Your task to perform on an android device: Open location settings Image 0: 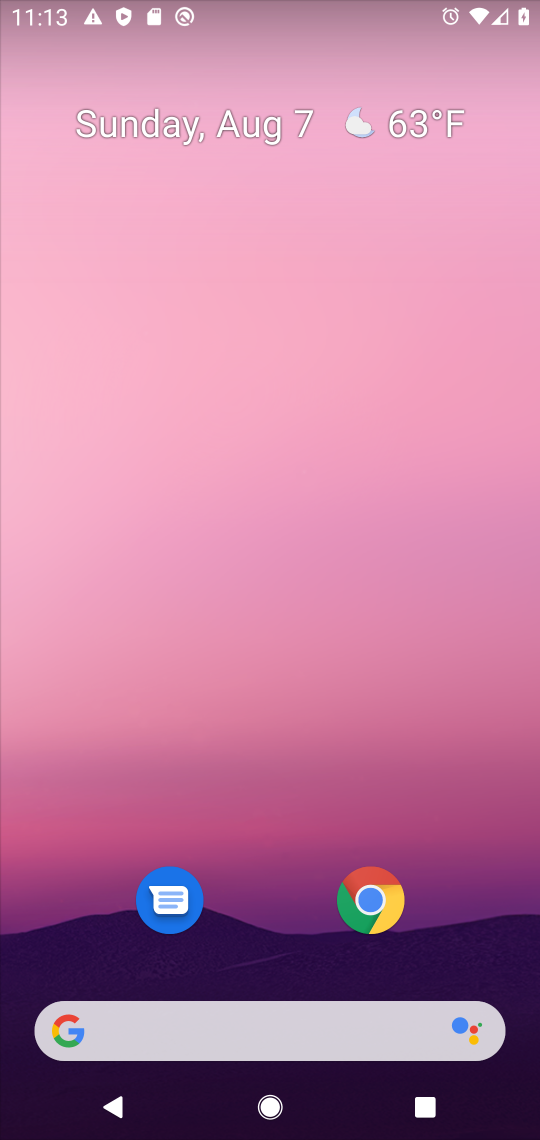
Step 0: press home button
Your task to perform on an android device: Open location settings Image 1: 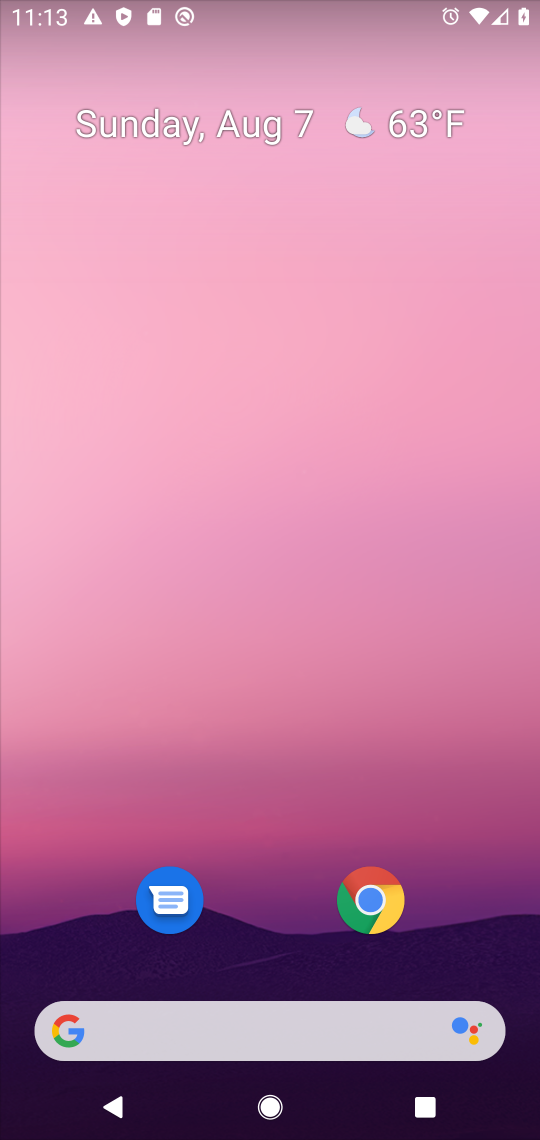
Step 1: drag from (281, 957) to (281, 208)
Your task to perform on an android device: Open location settings Image 2: 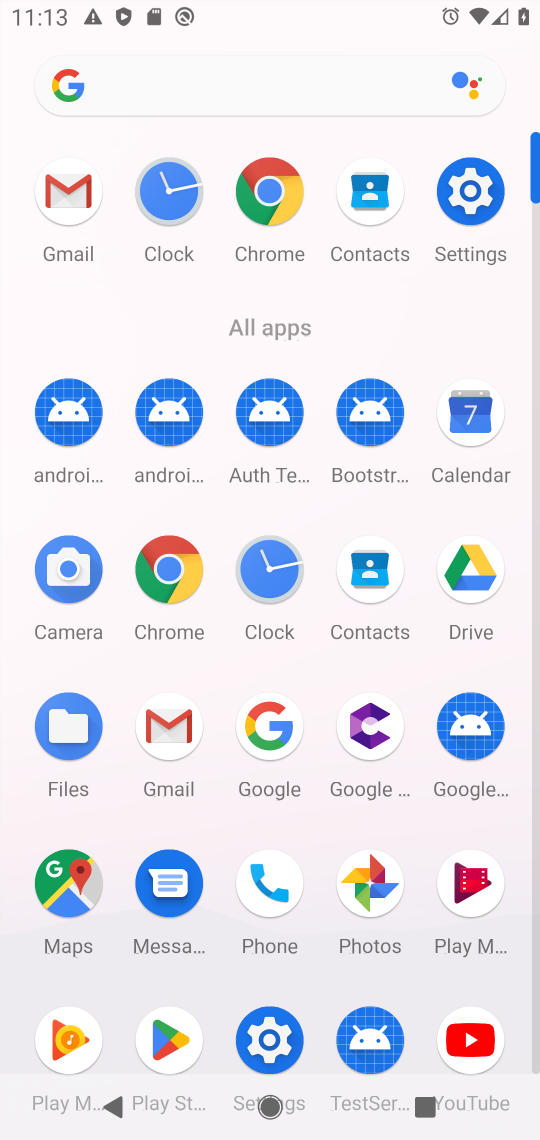
Step 2: click (466, 179)
Your task to perform on an android device: Open location settings Image 3: 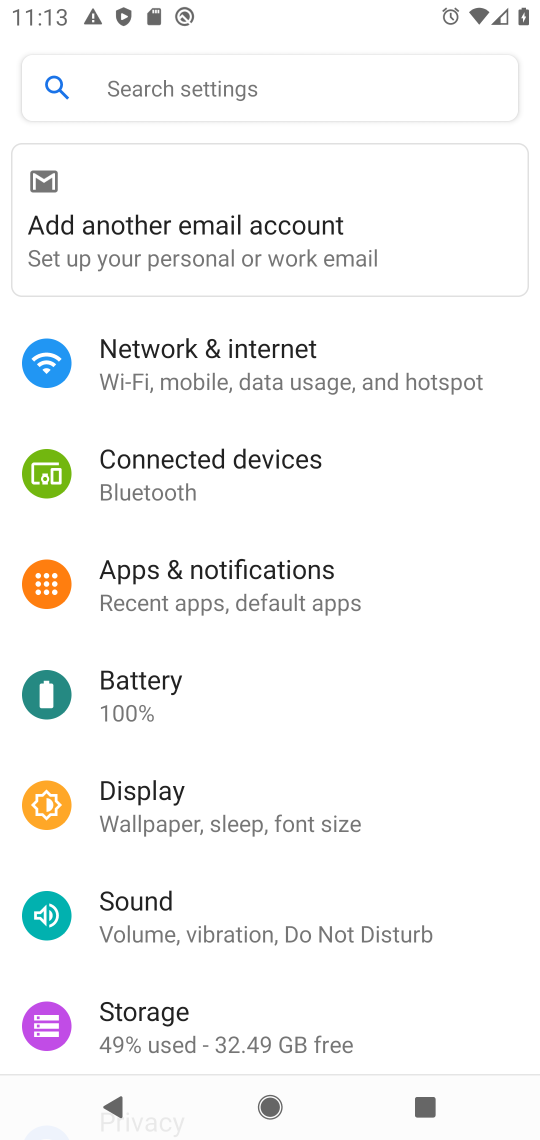
Step 3: drag from (237, 999) to (261, 540)
Your task to perform on an android device: Open location settings Image 4: 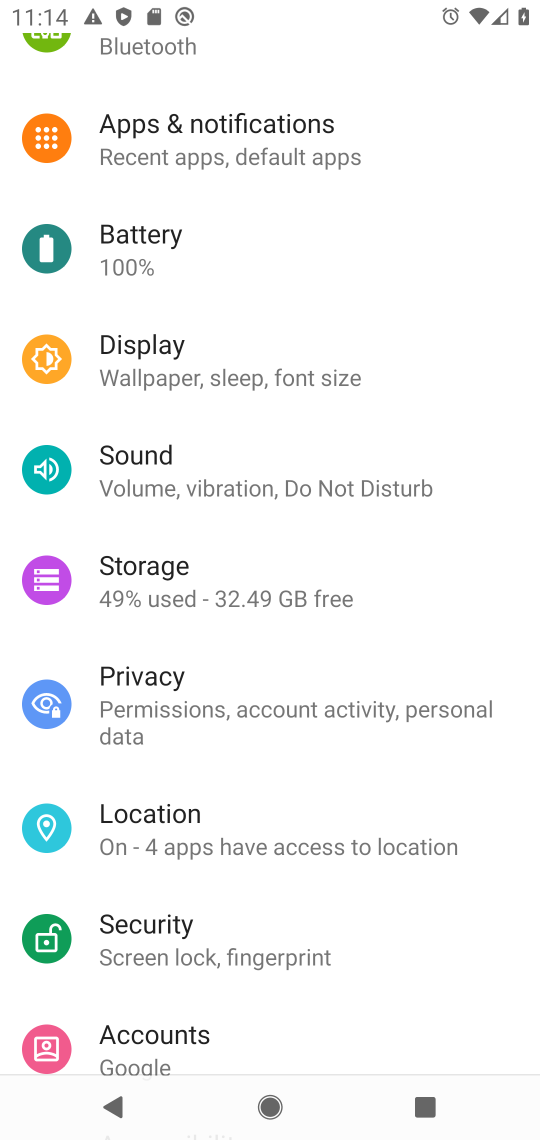
Step 4: click (237, 817)
Your task to perform on an android device: Open location settings Image 5: 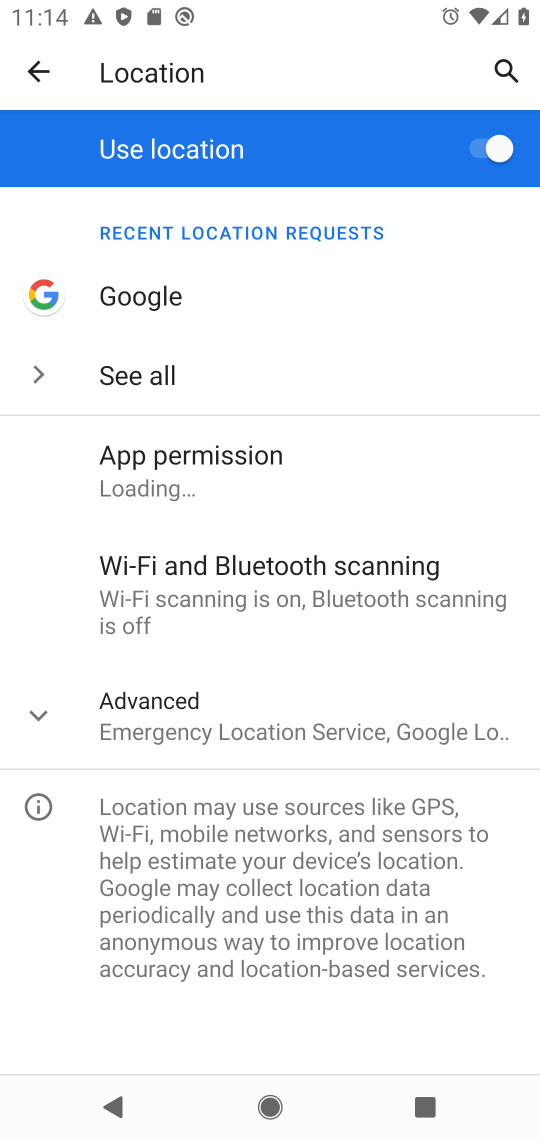
Step 5: click (38, 704)
Your task to perform on an android device: Open location settings Image 6: 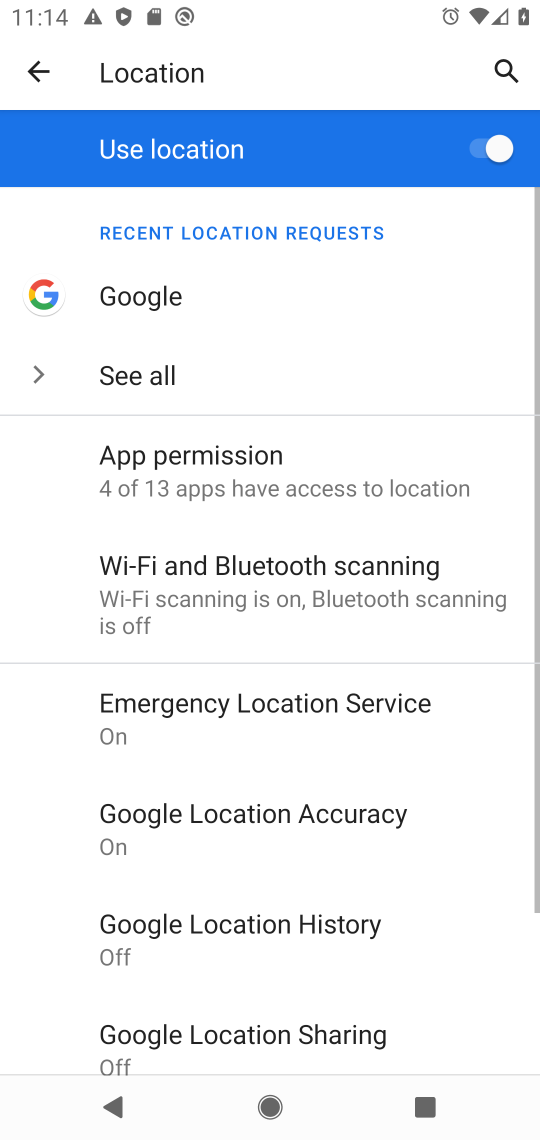
Step 6: task complete